Your task to perform on an android device: delete location history Image 0: 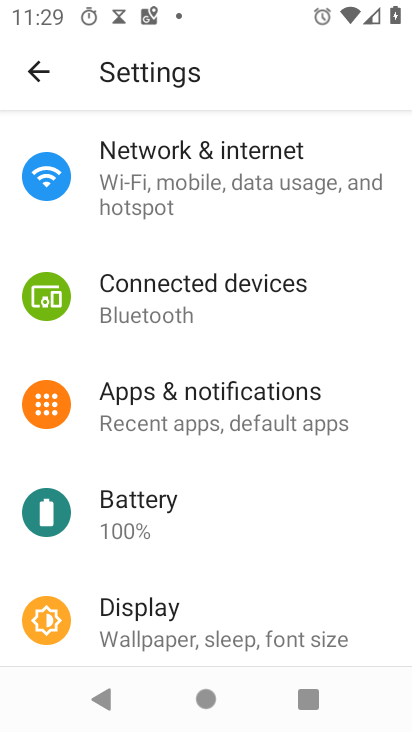
Step 0: drag from (226, 671) to (212, 297)
Your task to perform on an android device: delete location history Image 1: 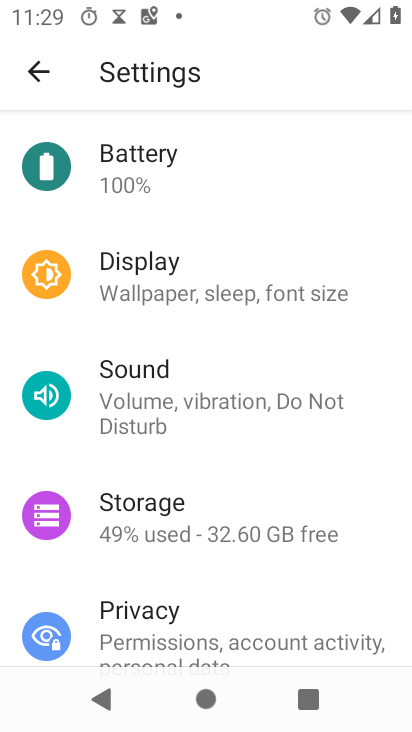
Step 1: drag from (302, 622) to (246, 240)
Your task to perform on an android device: delete location history Image 2: 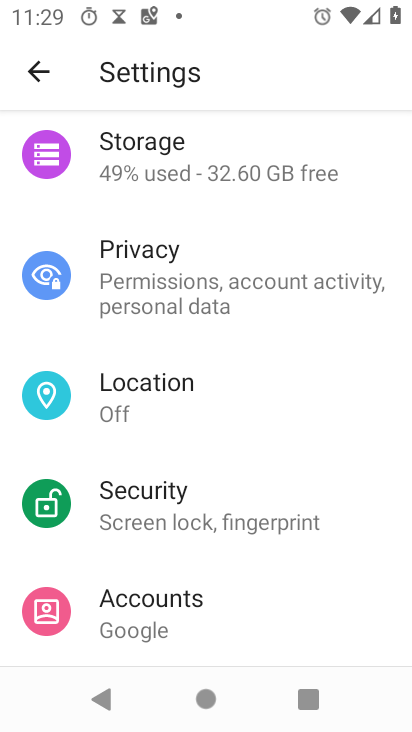
Step 2: click (205, 405)
Your task to perform on an android device: delete location history Image 3: 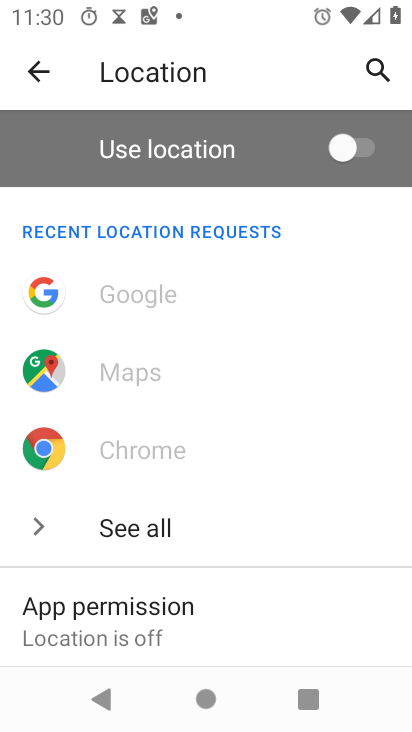
Step 3: drag from (11, 645) to (168, 229)
Your task to perform on an android device: delete location history Image 4: 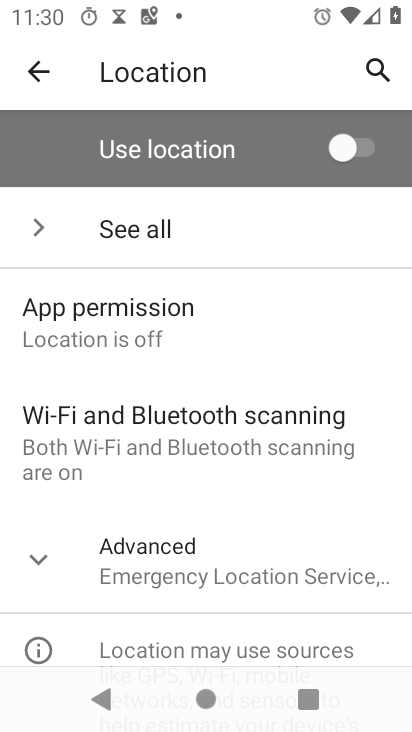
Step 4: click (223, 548)
Your task to perform on an android device: delete location history Image 5: 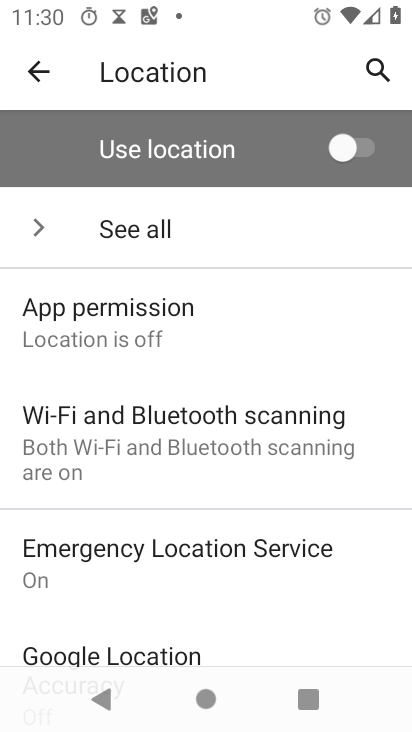
Step 5: drag from (54, 606) to (191, 169)
Your task to perform on an android device: delete location history Image 6: 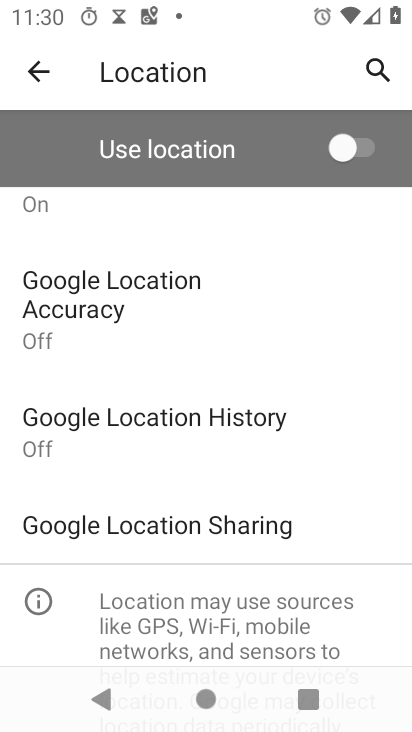
Step 6: click (179, 425)
Your task to perform on an android device: delete location history Image 7: 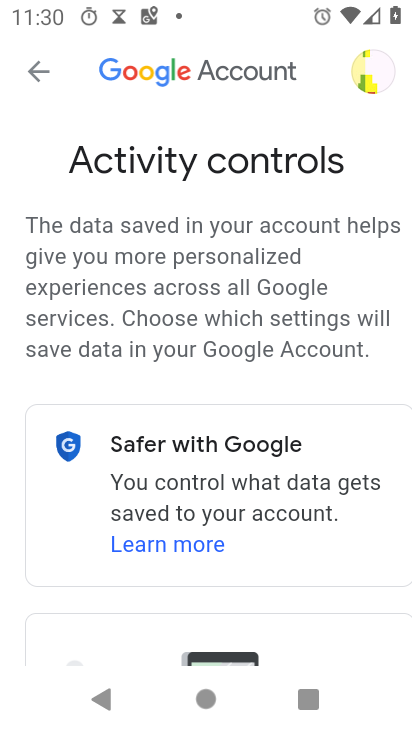
Step 7: drag from (26, 339) to (98, 50)
Your task to perform on an android device: delete location history Image 8: 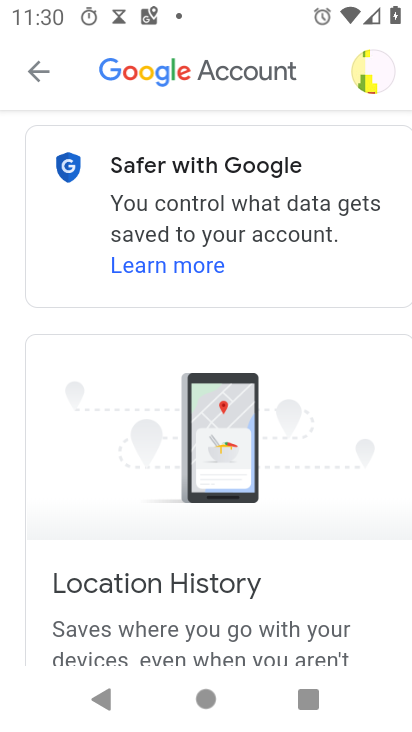
Step 8: drag from (257, 592) to (48, 50)
Your task to perform on an android device: delete location history Image 9: 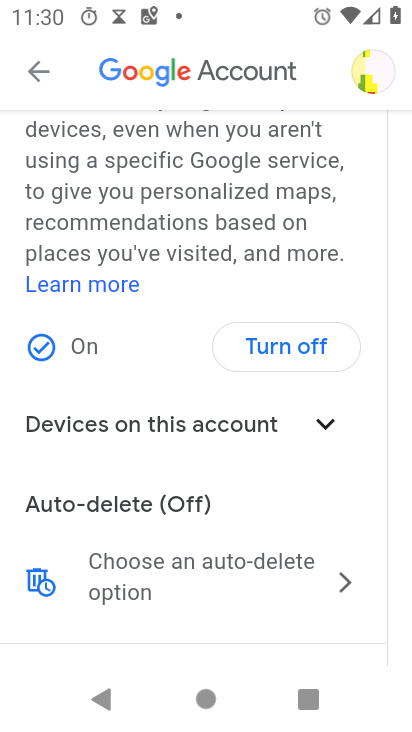
Step 9: click (288, 584)
Your task to perform on an android device: delete location history Image 10: 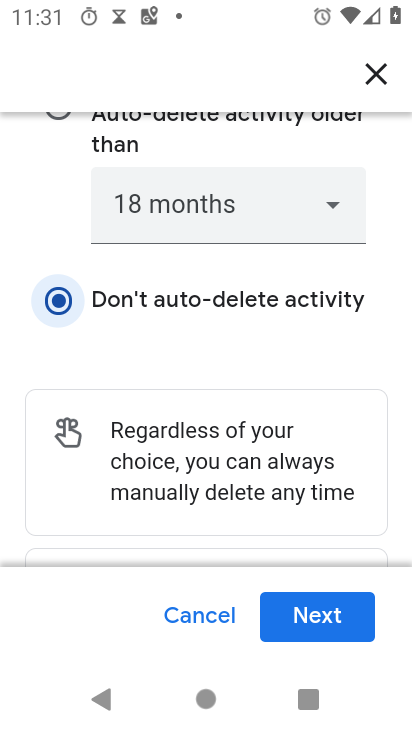
Step 10: click (323, 610)
Your task to perform on an android device: delete location history Image 11: 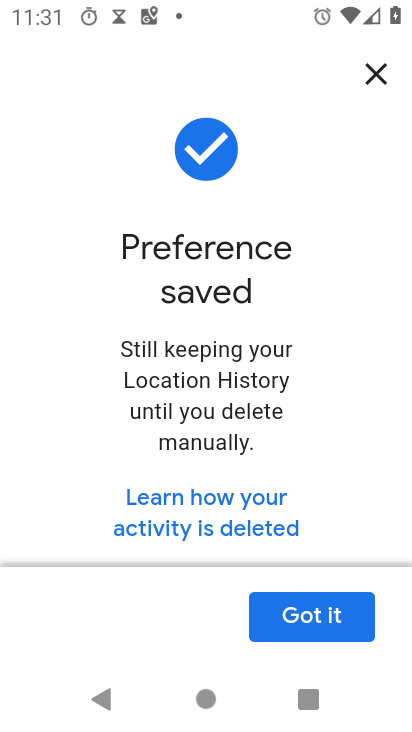
Step 11: click (336, 617)
Your task to perform on an android device: delete location history Image 12: 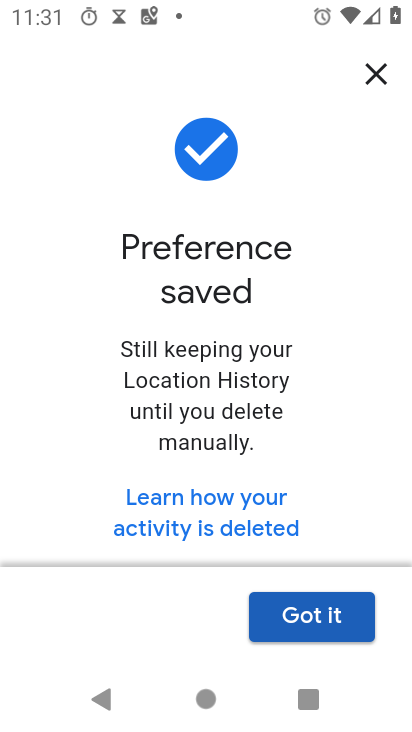
Step 12: task complete